Your task to perform on an android device: empty trash in google photos Image 0: 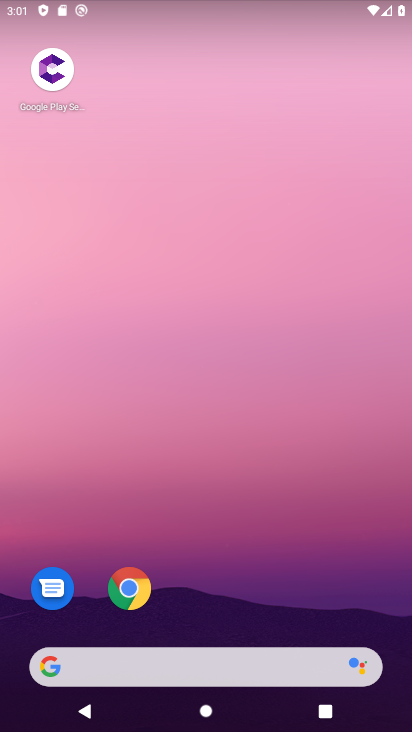
Step 0: drag from (178, 652) to (250, 120)
Your task to perform on an android device: empty trash in google photos Image 1: 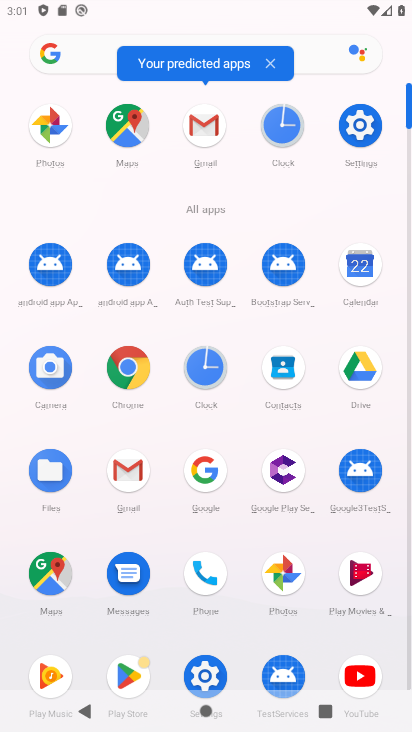
Step 1: click (278, 567)
Your task to perform on an android device: empty trash in google photos Image 2: 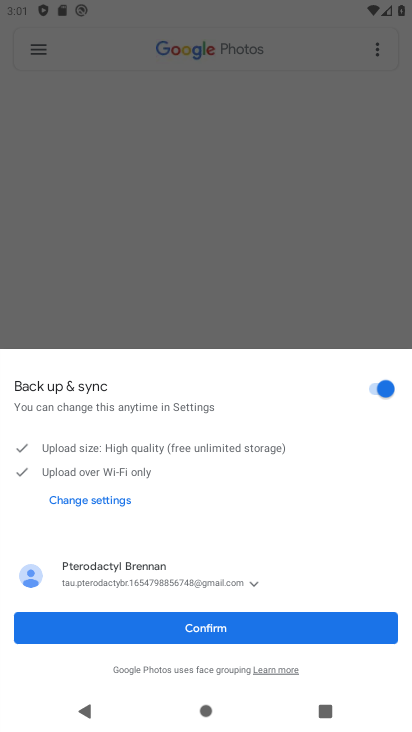
Step 2: click (191, 631)
Your task to perform on an android device: empty trash in google photos Image 3: 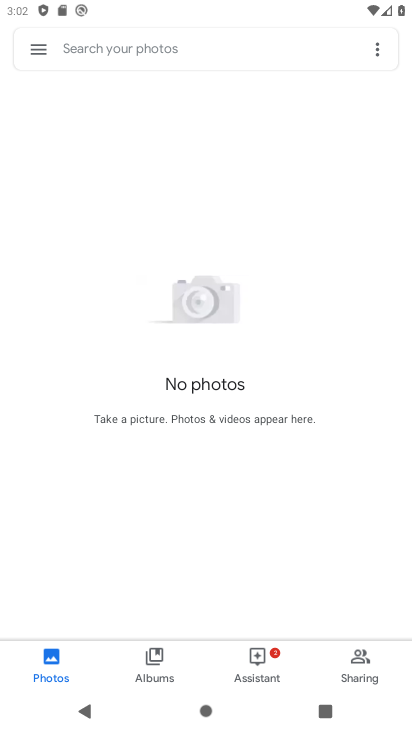
Step 3: click (39, 50)
Your task to perform on an android device: empty trash in google photos Image 4: 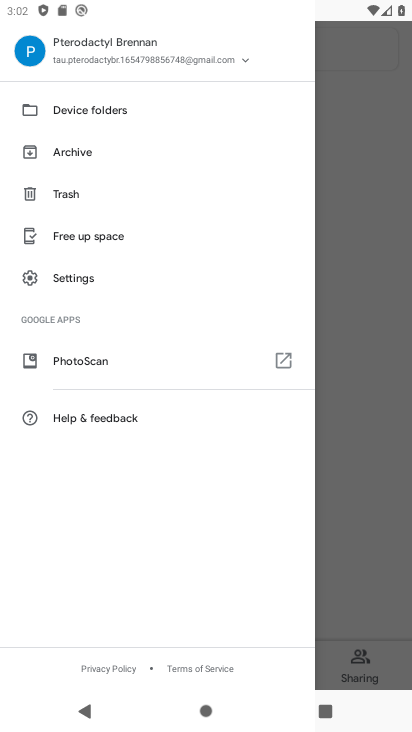
Step 4: click (68, 199)
Your task to perform on an android device: empty trash in google photos Image 5: 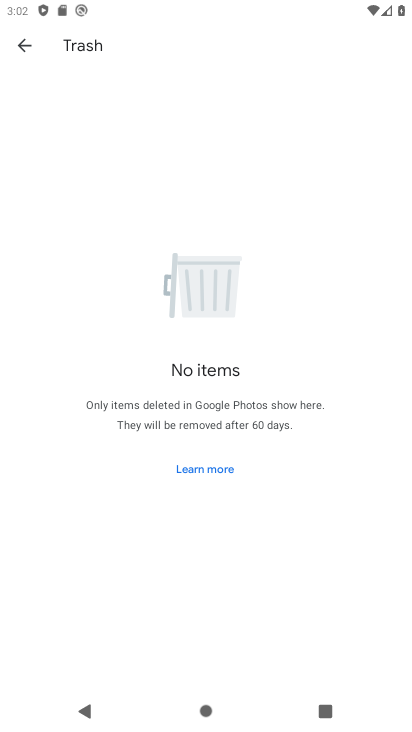
Step 5: task complete